Your task to perform on an android device: turn off notifications in google photos Image 0: 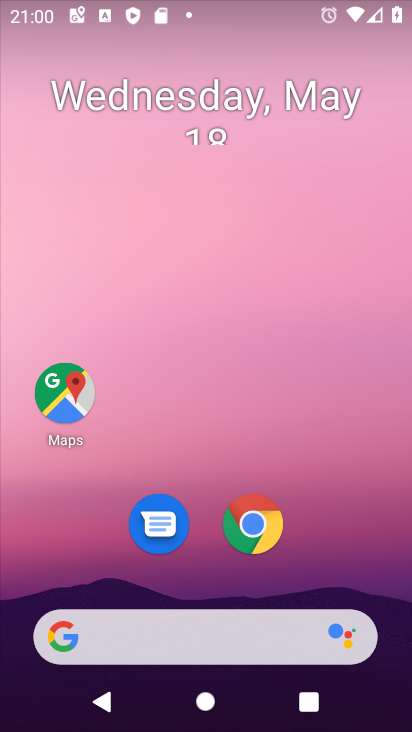
Step 0: drag from (219, 446) to (258, 28)
Your task to perform on an android device: turn off notifications in google photos Image 1: 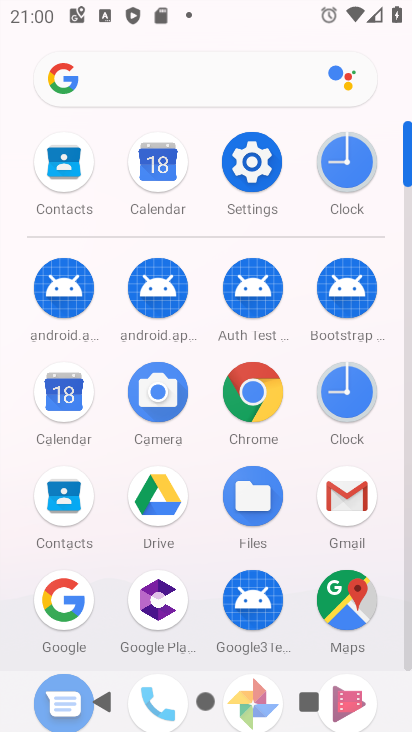
Step 1: click (257, 152)
Your task to perform on an android device: turn off notifications in google photos Image 2: 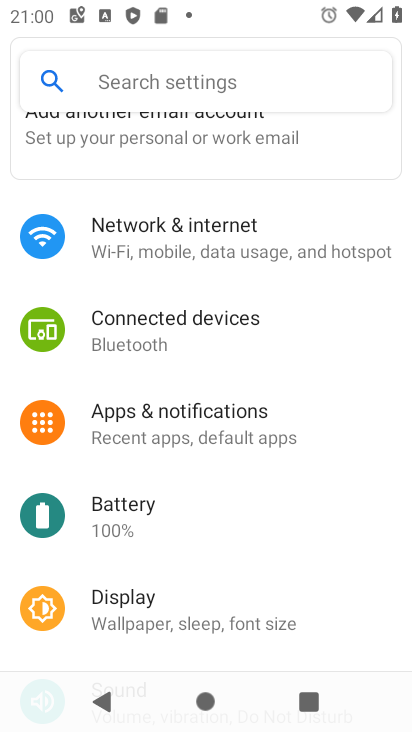
Step 2: click (196, 418)
Your task to perform on an android device: turn off notifications in google photos Image 3: 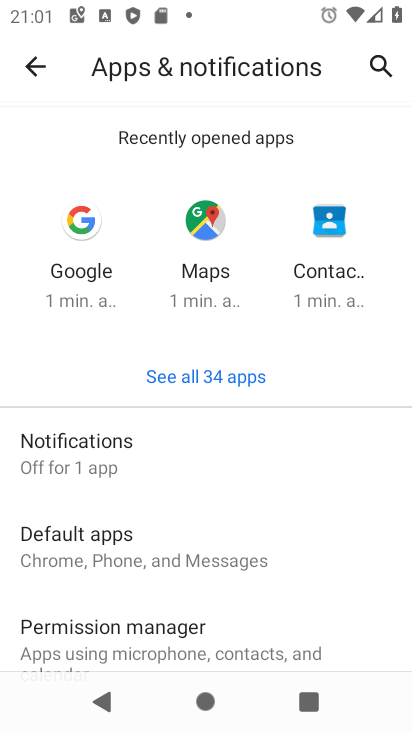
Step 3: click (211, 369)
Your task to perform on an android device: turn off notifications in google photos Image 4: 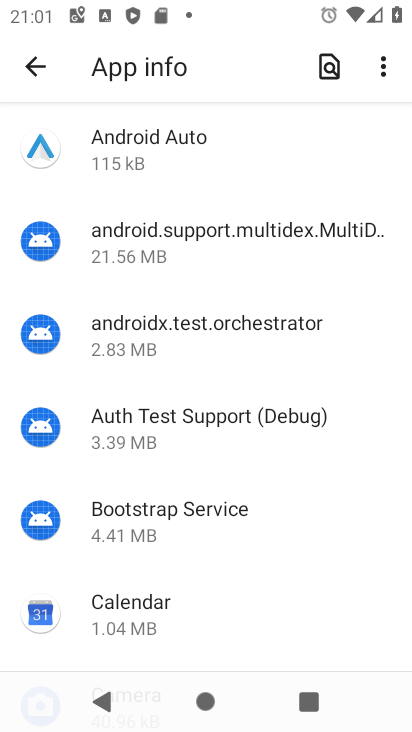
Step 4: drag from (212, 595) to (219, 4)
Your task to perform on an android device: turn off notifications in google photos Image 5: 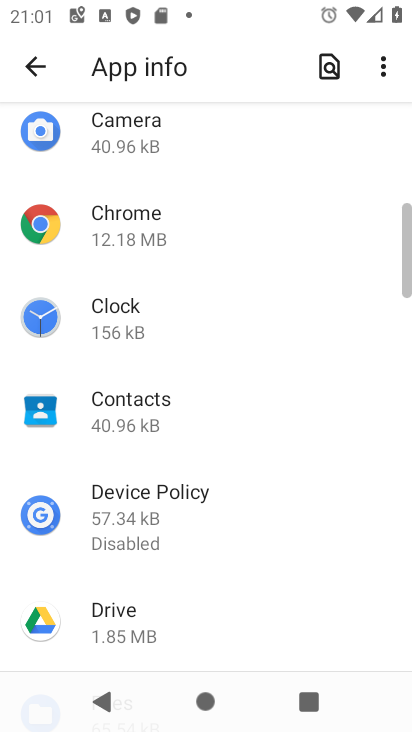
Step 5: drag from (192, 628) to (219, 5)
Your task to perform on an android device: turn off notifications in google photos Image 6: 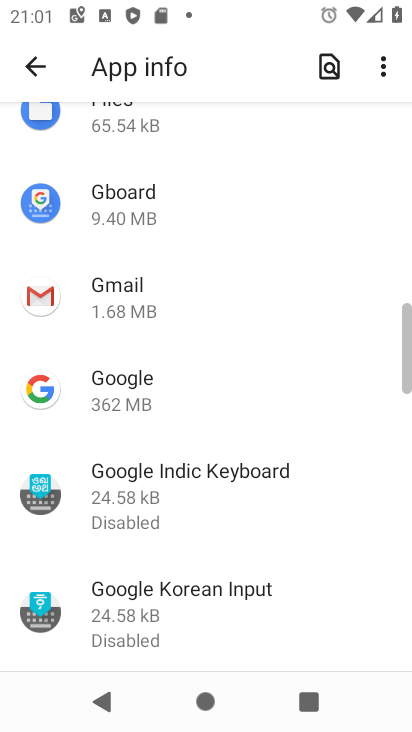
Step 6: drag from (223, 617) to (218, 22)
Your task to perform on an android device: turn off notifications in google photos Image 7: 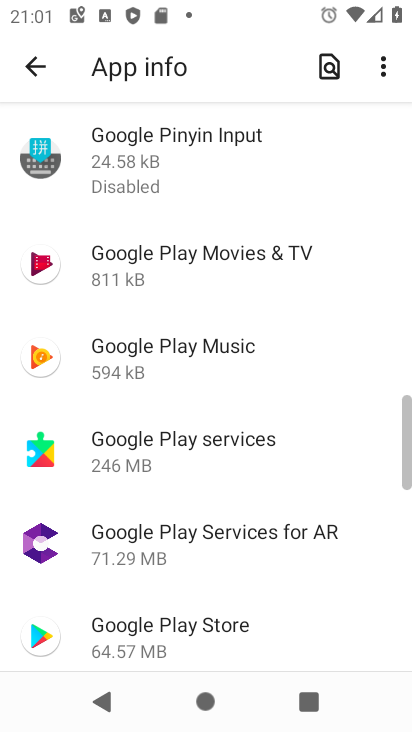
Step 7: drag from (208, 586) to (225, 126)
Your task to perform on an android device: turn off notifications in google photos Image 8: 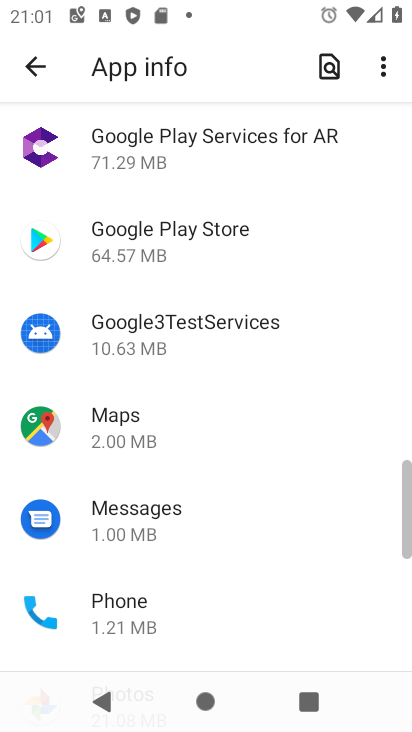
Step 8: drag from (215, 547) to (220, 300)
Your task to perform on an android device: turn off notifications in google photos Image 9: 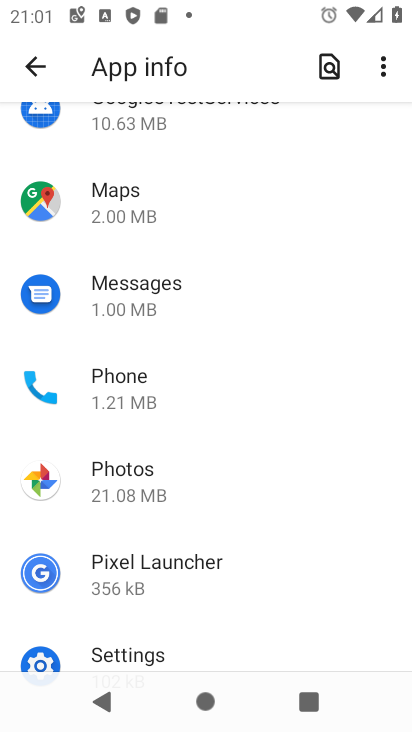
Step 9: click (152, 474)
Your task to perform on an android device: turn off notifications in google photos Image 10: 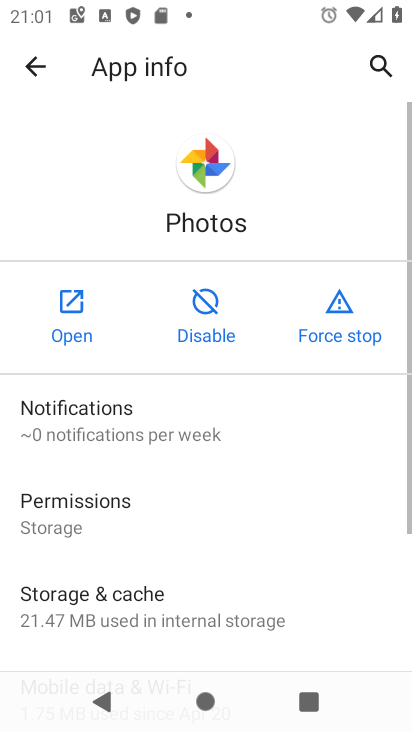
Step 10: click (152, 418)
Your task to perform on an android device: turn off notifications in google photos Image 11: 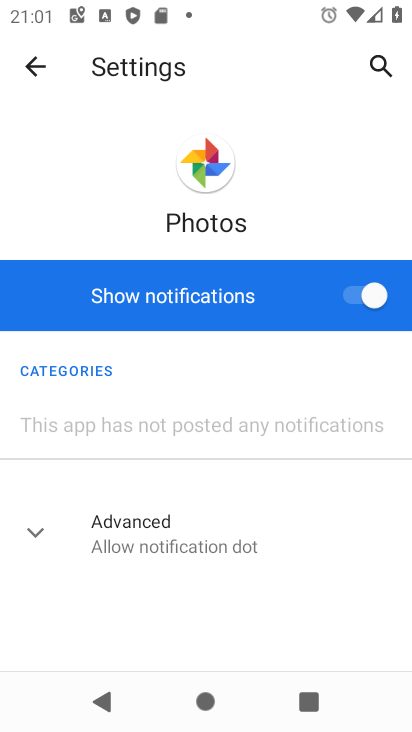
Step 11: click (360, 297)
Your task to perform on an android device: turn off notifications in google photos Image 12: 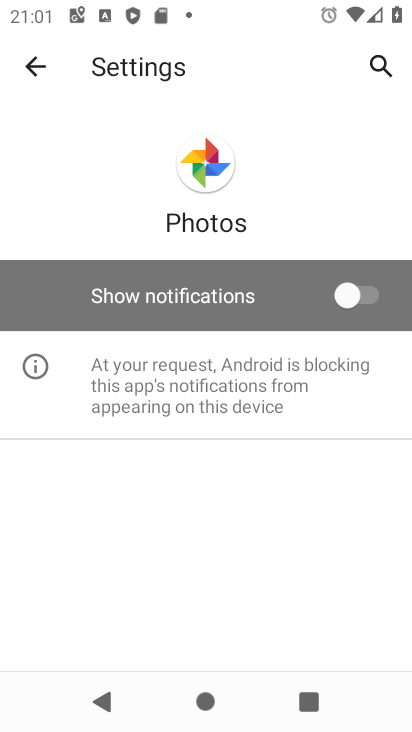
Step 12: task complete